Your task to perform on an android device: Open Wikipedia Image 0: 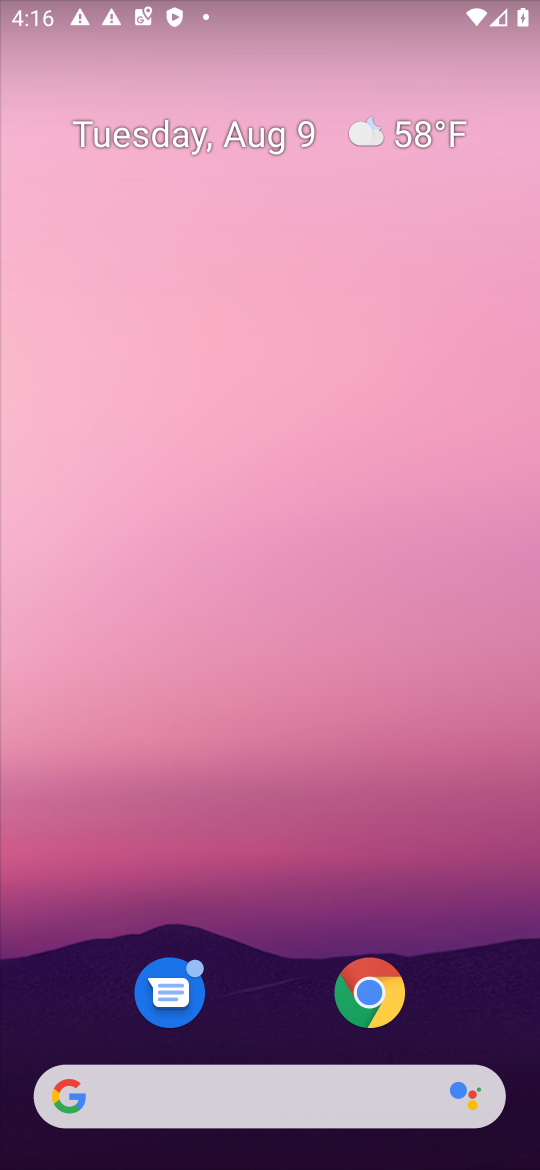
Step 0: drag from (227, 1059) to (478, 26)
Your task to perform on an android device: Open Wikipedia Image 1: 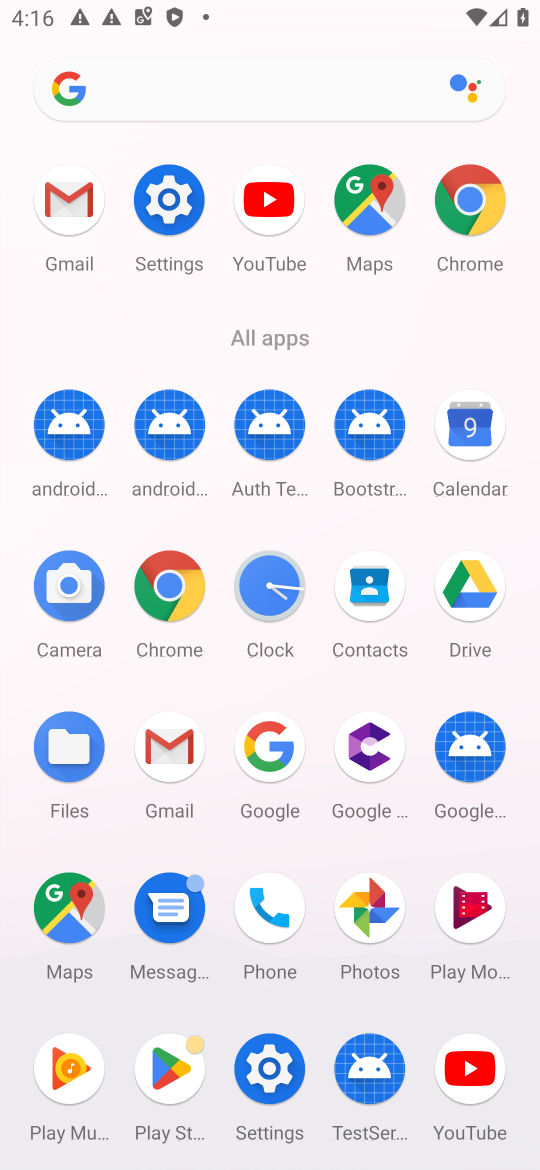
Step 1: click (161, 606)
Your task to perform on an android device: Open Wikipedia Image 2: 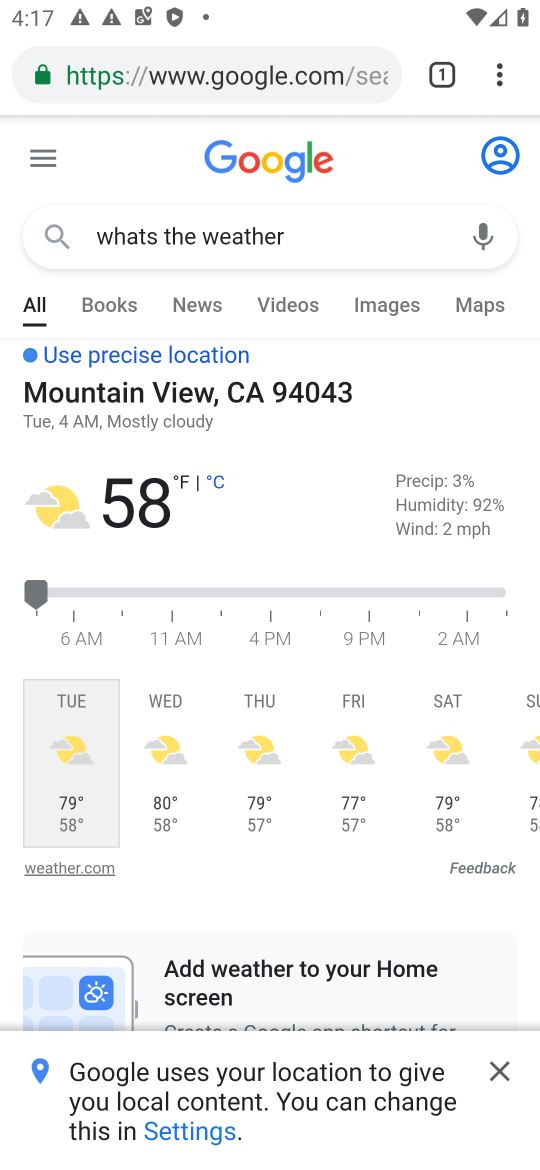
Step 2: click (501, 70)
Your task to perform on an android device: Open Wikipedia Image 3: 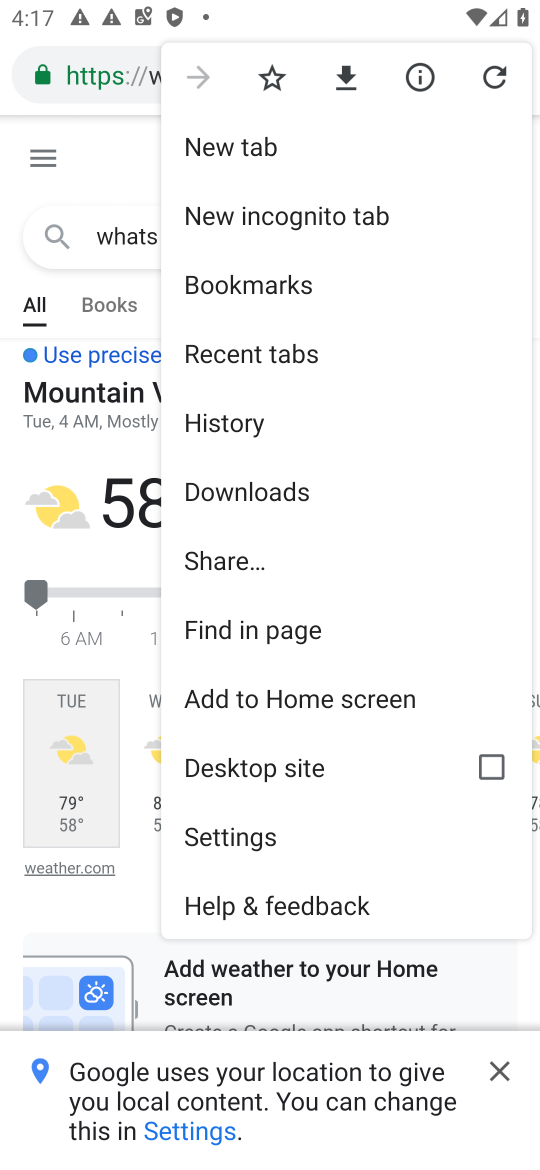
Step 3: click (297, 139)
Your task to perform on an android device: Open Wikipedia Image 4: 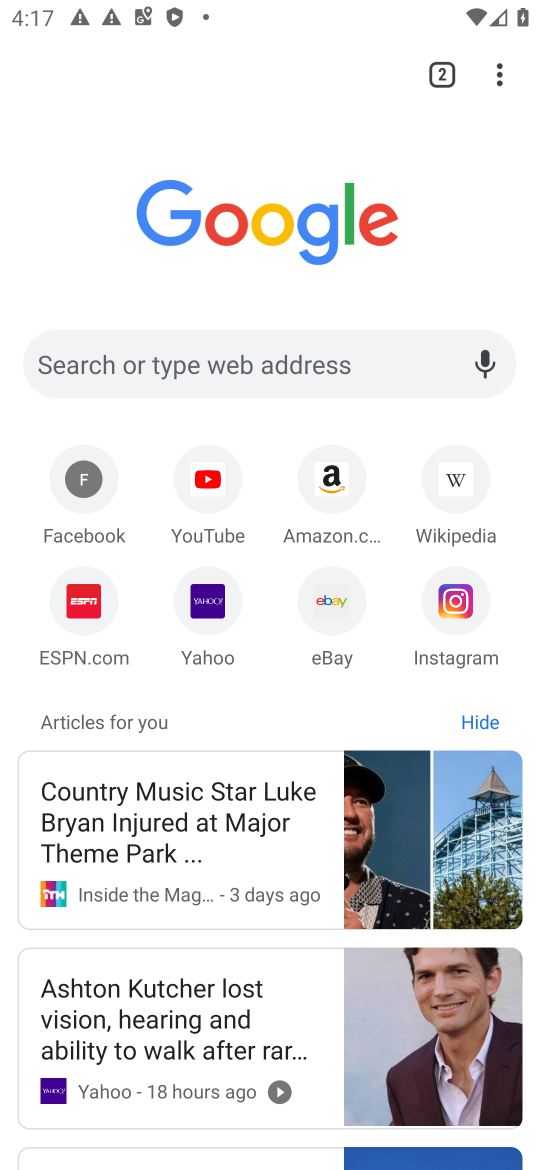
Step 4: click (473, 505)
Your task to perform on an android device: Open Wikipedia Image 5: 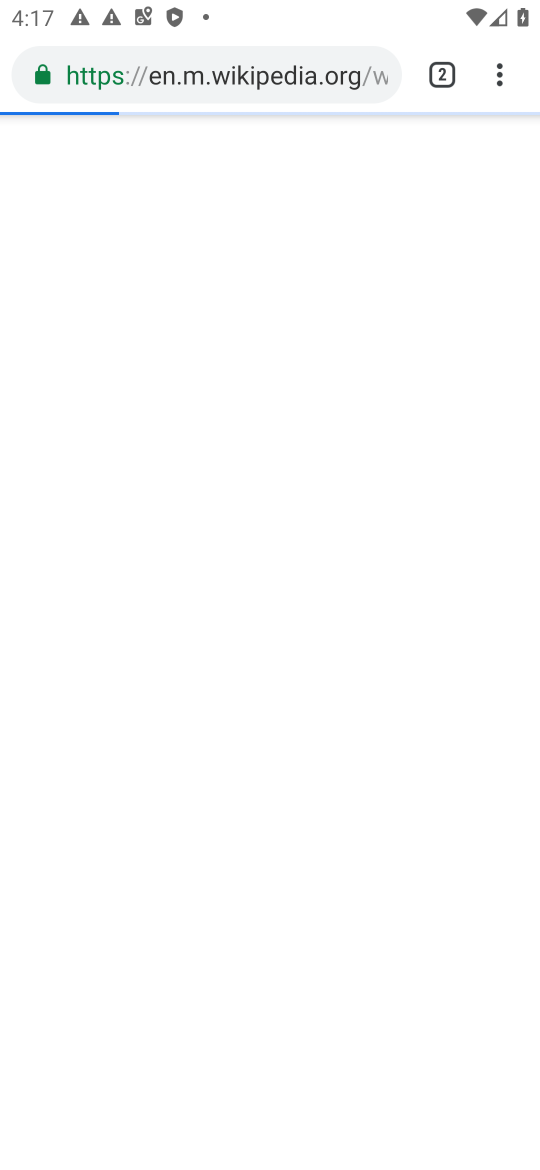
Step 5: click (473, 505)
Your task to perform on an android device: Open Wikipedia Image 6: 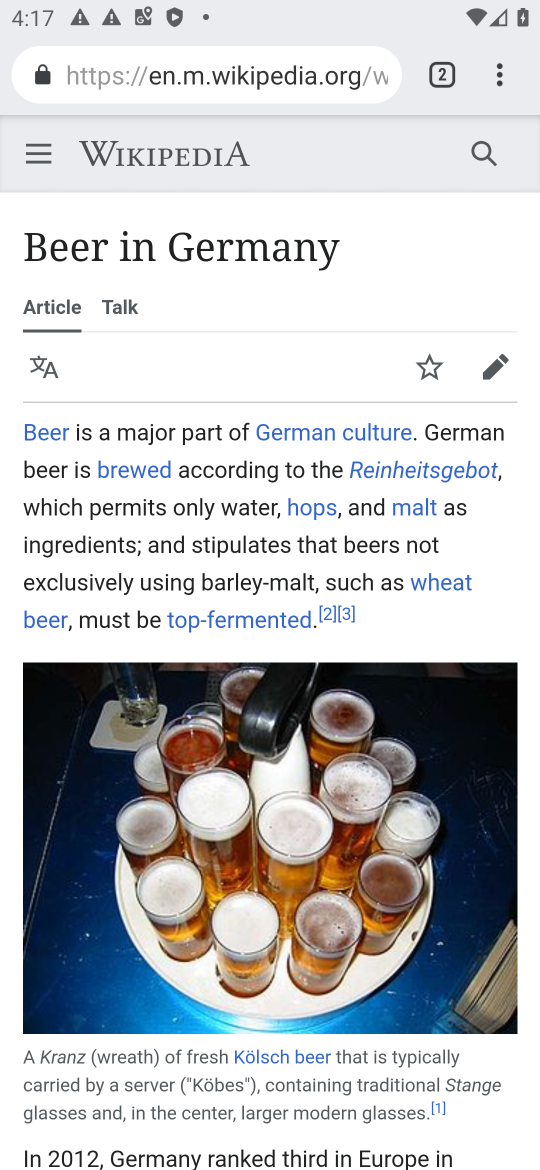
Step 6: task complete